Your task to perform on an android device: turn on bluetooth scan Image 0: 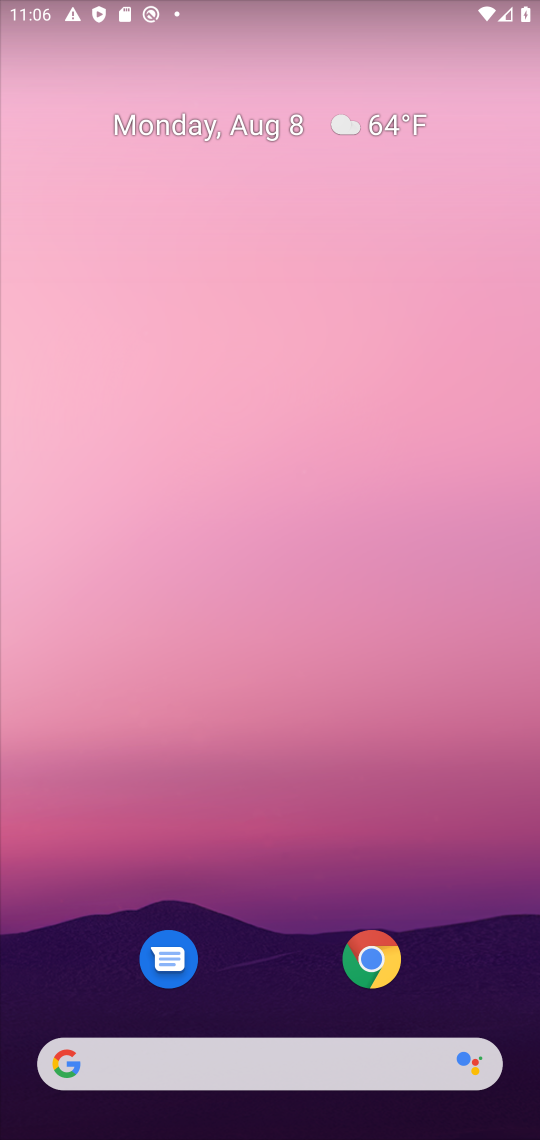
Step 0: drag from (283, 979) to (261, 207)
Your task to perform on an android device: turn on bluetooth scan Image 1: 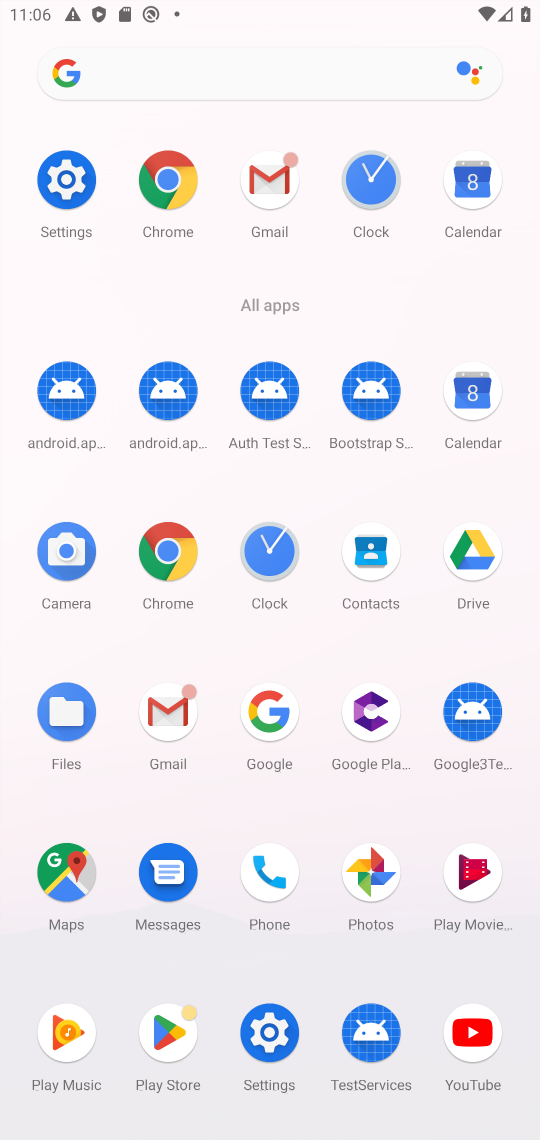
Step 1: click (62, 180)
Your task to perform on an android device: turn on bluetooth scan Image 2: 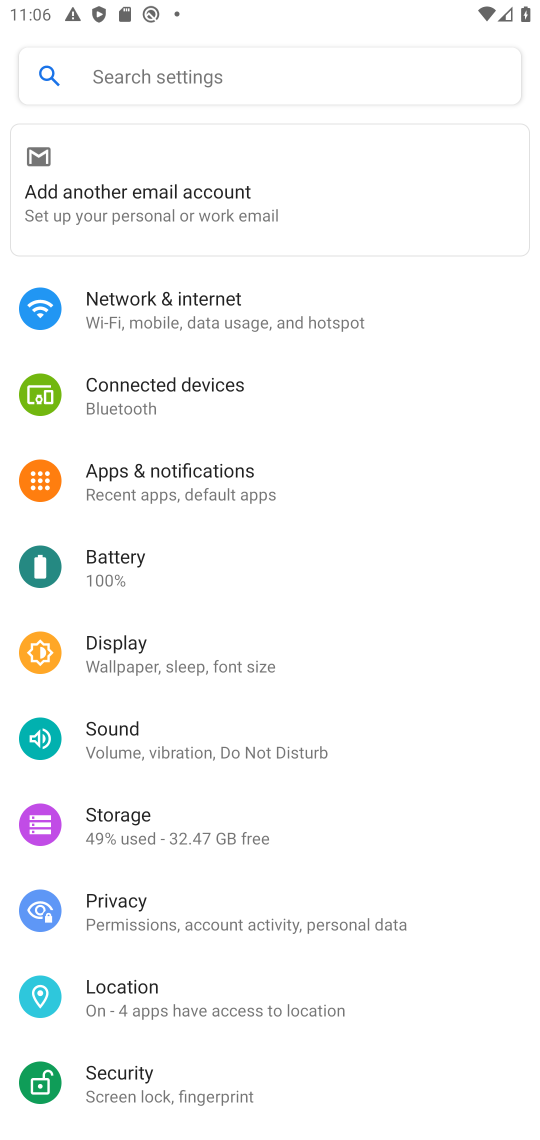
Step 2: click (230, 1006)
Your task to perform on an android device: turn on bluetooth scan Image 3: 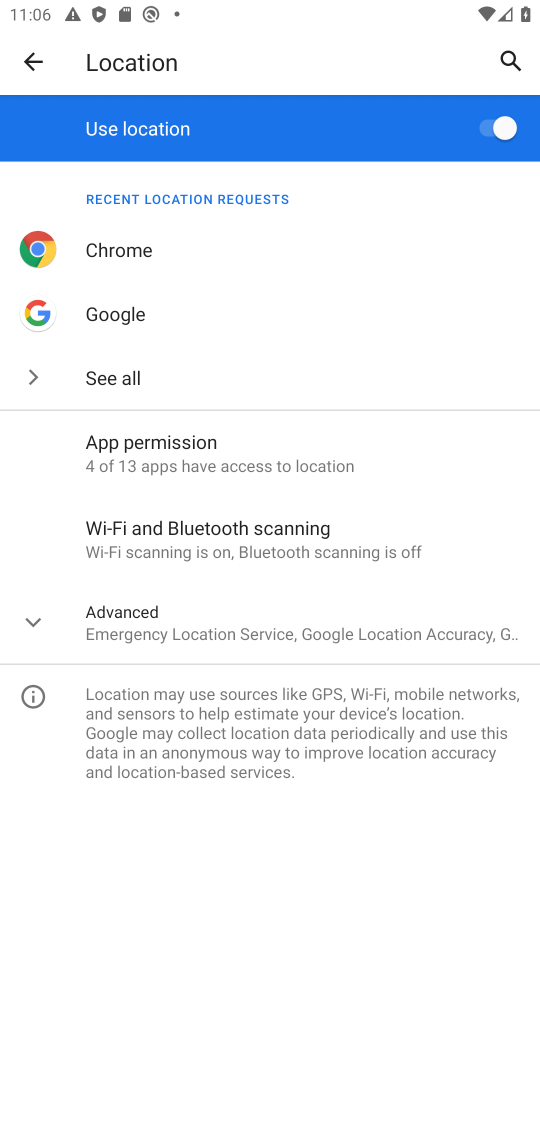
Step 3: click (241, 538)
Your task to perform on an android device: turn on bluetooth scan Image 4: 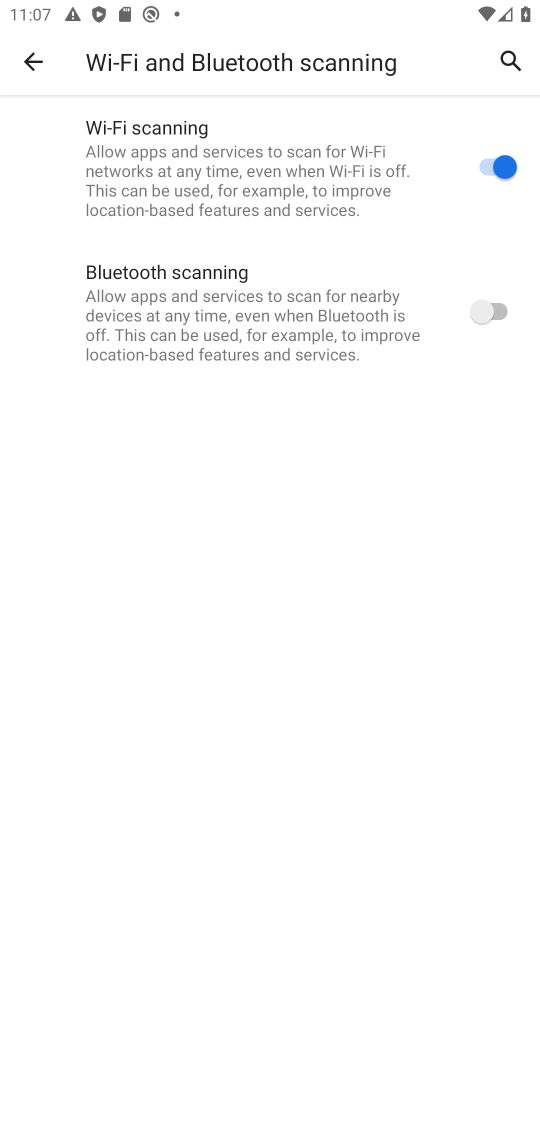
Step 4: click (461, 330)
Your task to perform on an android device: turn on bluetooth scan Image 5: 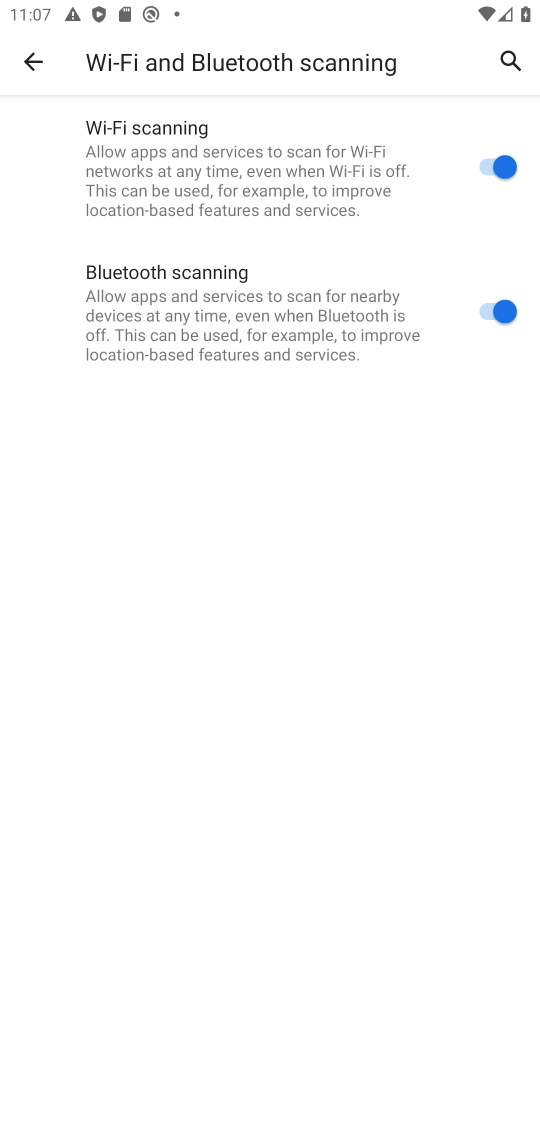
Step 5: task complete